Your task to perform on an android device: toggle improve location accuracy Image 0: 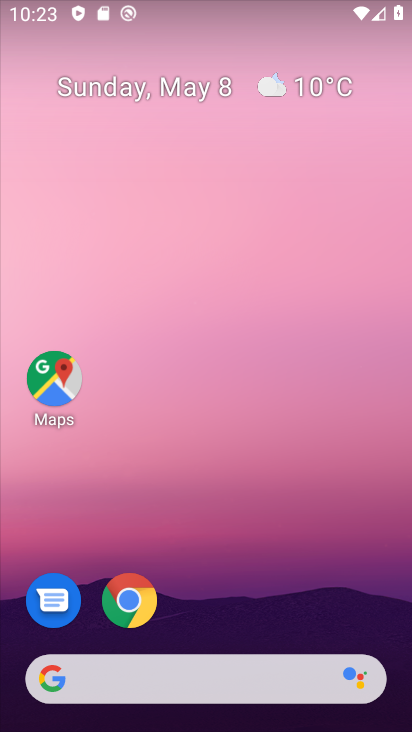
Step 0: drag from (400, 625) to (383, 183)
Your task to perform on an android device: toggle improve location accuracy Image 1: 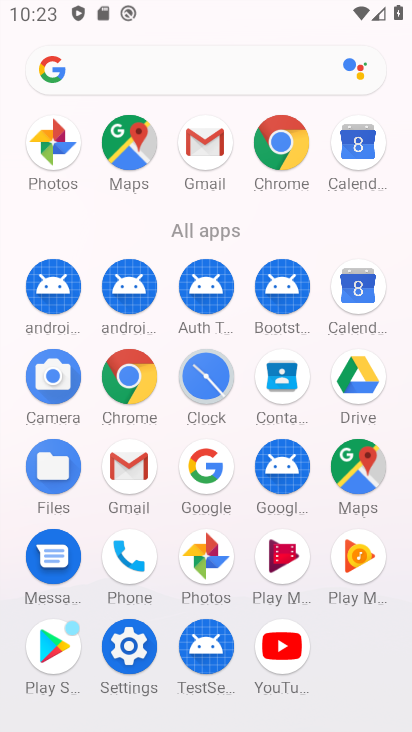
Step 1: click (123, 627)
Your task to perform on an android device: toggle improve location accuracy Image 2: 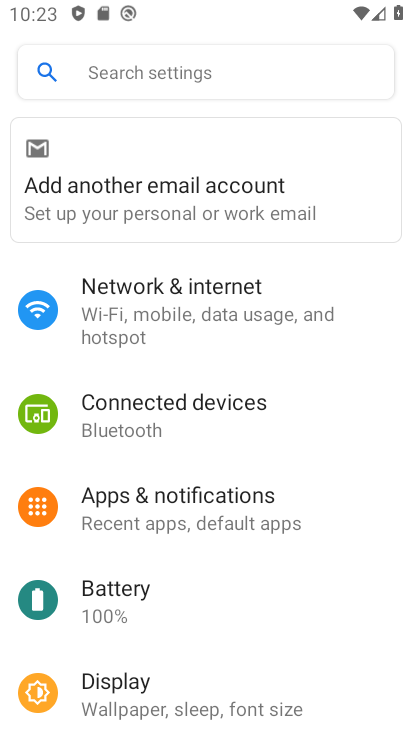
Step 2: drag from (359, 690) to (362, 434)
Your task to perform on an android device: toggle improve location accuracy Image 3: 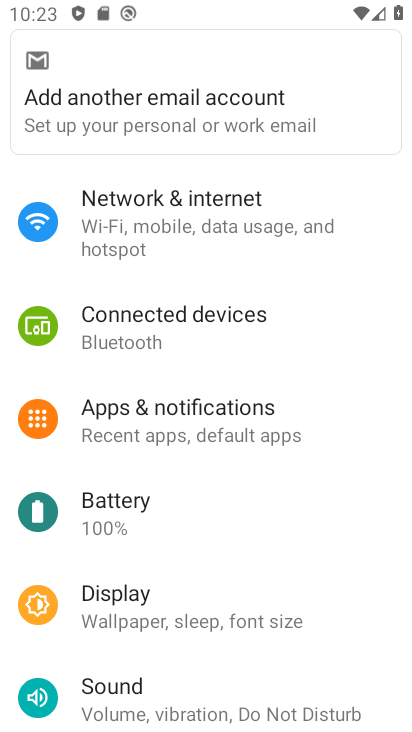
Step 3: drag from (375, 656) to (383, 330)
Your task to perform on an android device: toggle improve location accuracy Image 4: 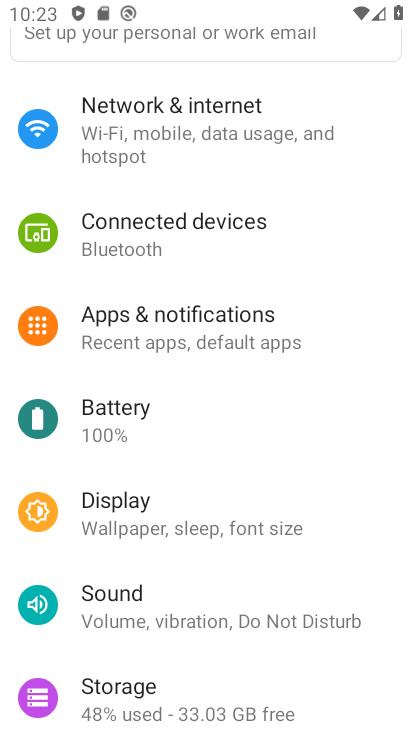
Step 4: drag from (366, 677) to (332, 382)
Your task to perform on an android device: toggle improve location accuracy Image 5: 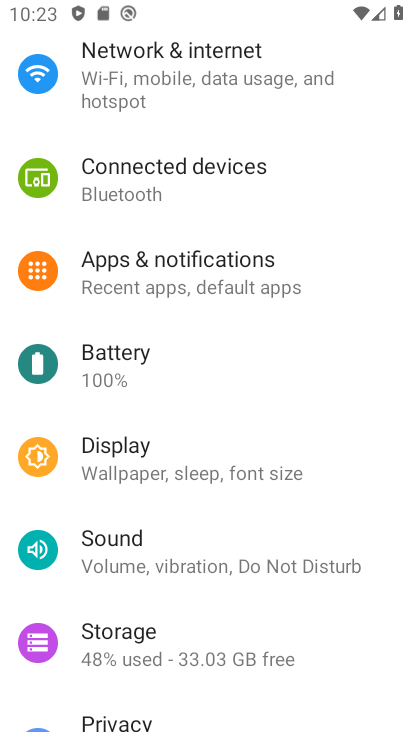
Step 5: drag from (369, 619) to (383, 367)
Your task to perform on an android device: toggle improve location accuracy Image 6: 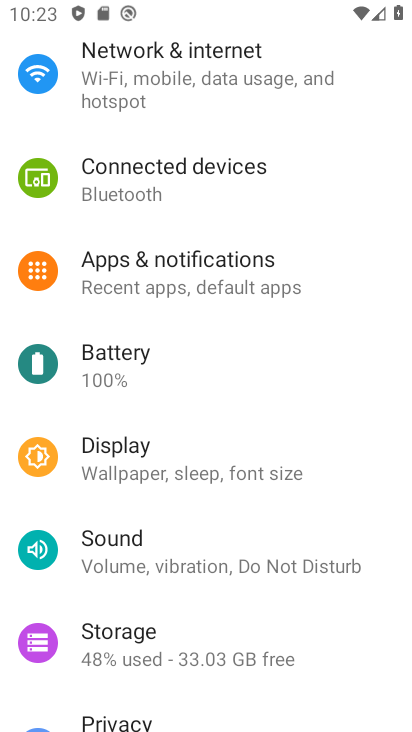
Step 6: drag from (348, 643) to (332, 336)
Your task to perform on an android device: toggle improve location accuracy Image 7: 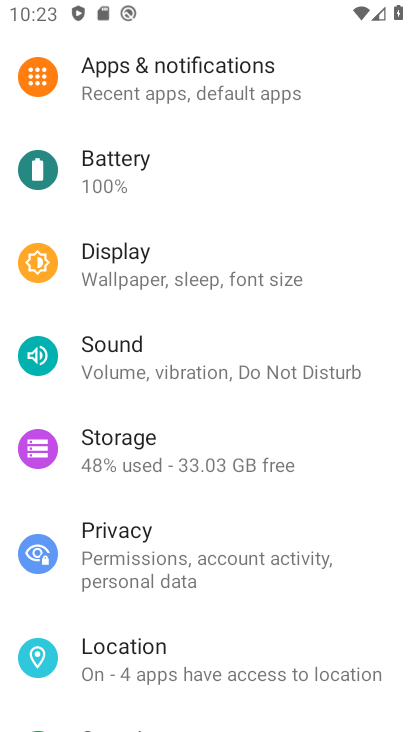
Step 7: click (100, 643)
Your task to perform on an android device: toggle improve location accuracy Image 8: 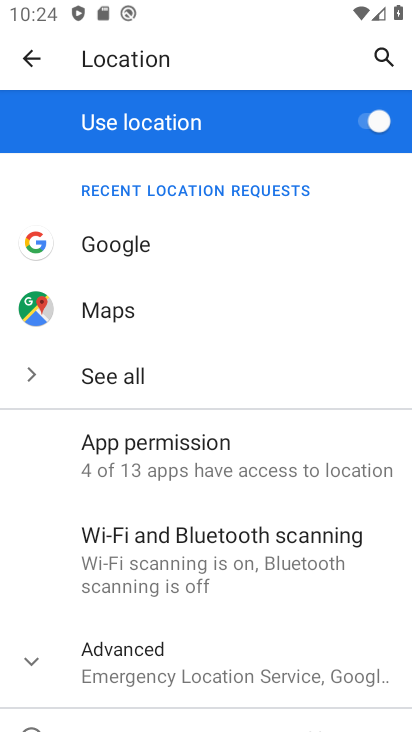
Step 8: click (45, 645)
Your task to perform on an android device: toggle improve location accuracy Image 9: 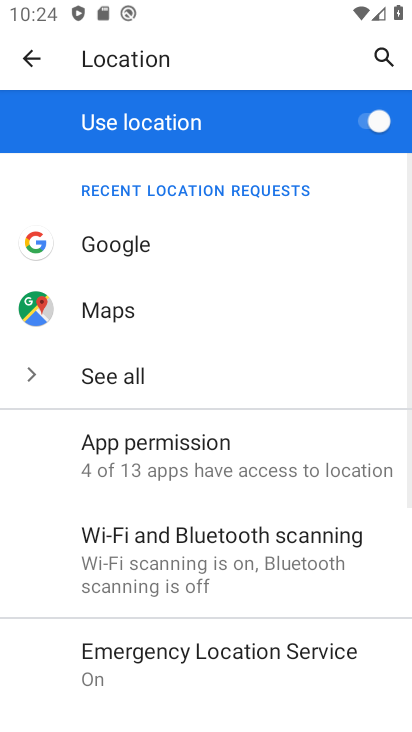
Step 9: drag from (347, 680) to (331, 312)
Your task to perform on an android device: toggle improve location accuracy Image 10: 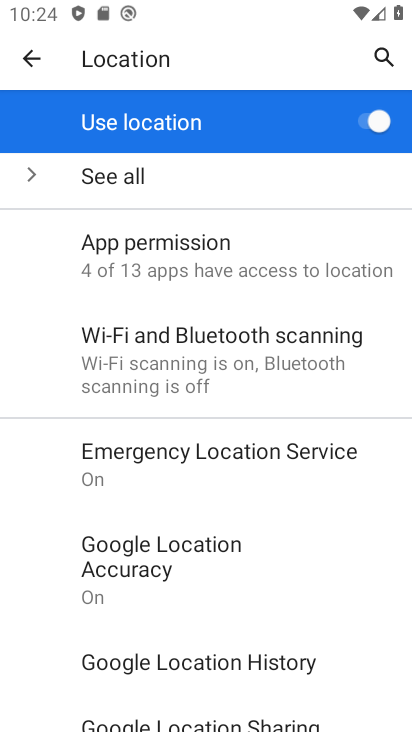
Step 10: click (145, 557)
Your task to perform on an android device: toggle improve location accuracy Image 11: 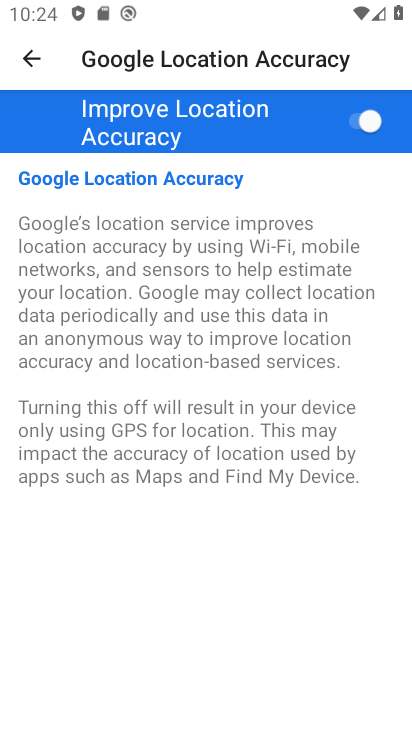
Step 11: click (360, 119)
Your task to perform on an android device: toggle improve location accuracy Image 12: 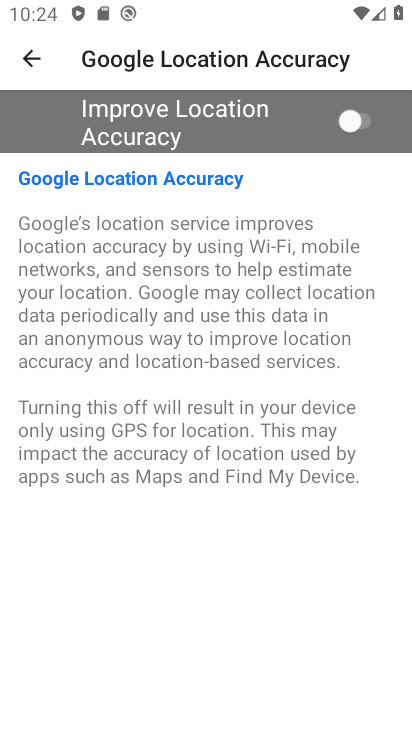
Step 12: task complete